Your task to perform on an android device: Open Google Maps and go to "Timeline" Image 0: 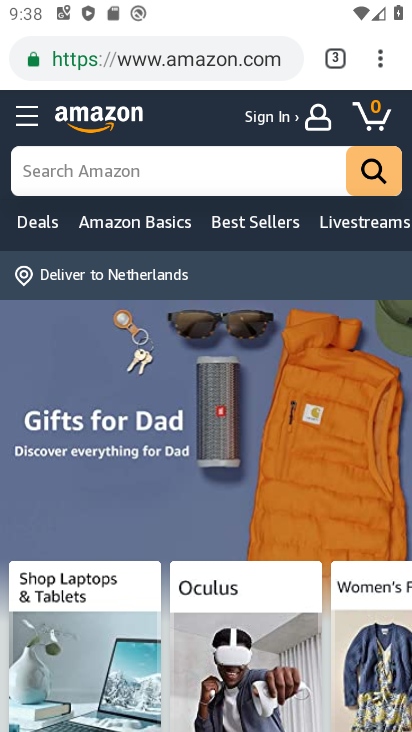
Step 0: press home button
Your task to perform on an android device: Open Google Maps and go to "Timeline" Image 1: 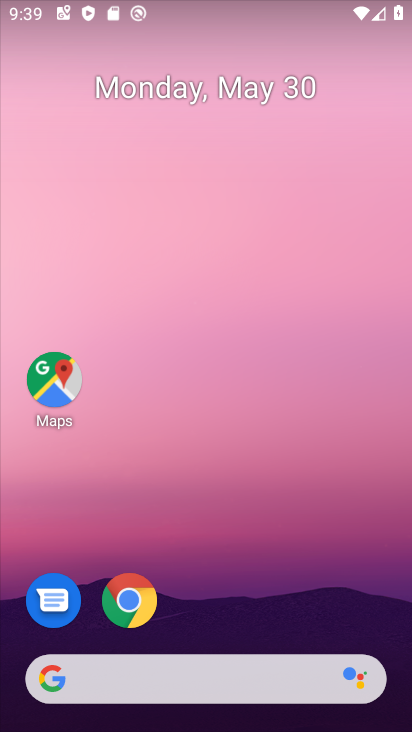
Step 1: click (55, 375)
Your task to perform on an android device: Open Google Maps and go to "Timeline" Image 2: 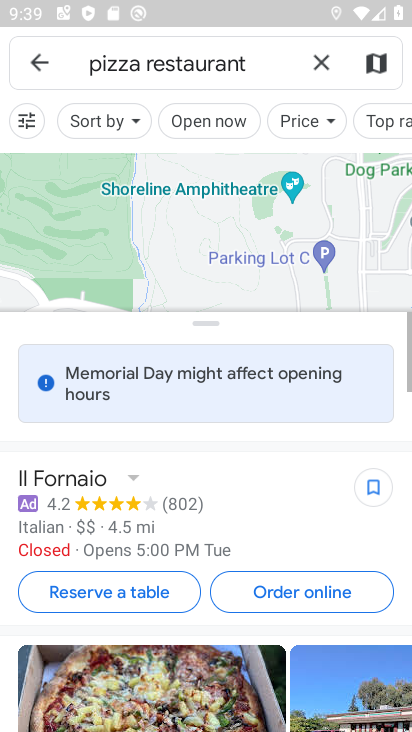
Step 2: click (324, 64)
Your task to perform on an android device: Open Google Maps and go to "Timeline" Image 3: 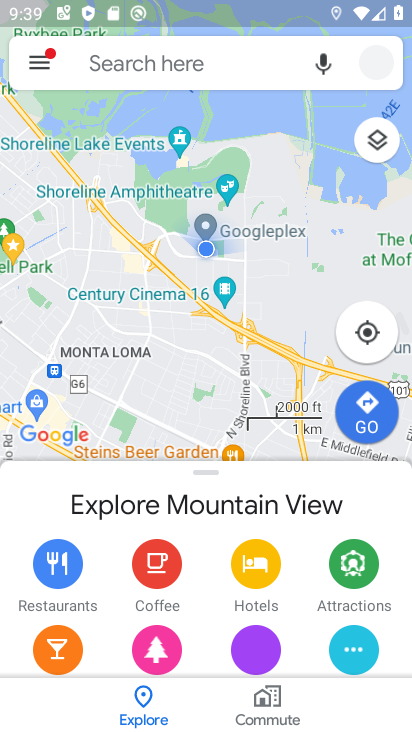
Step 3: click (32, 62)
Your task to perform on an android device: Open Google Maps and go to "Timeline" Image 4: 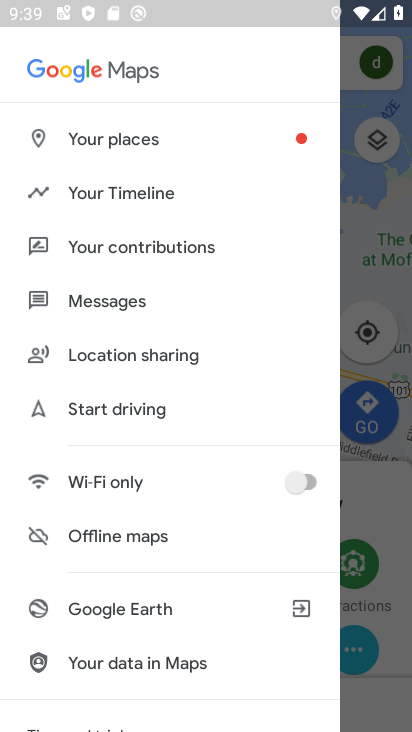
Step 4: click (117, 188)
Your task to perform on an android device: Open Google Maps and go to "Timeline" Image 5: 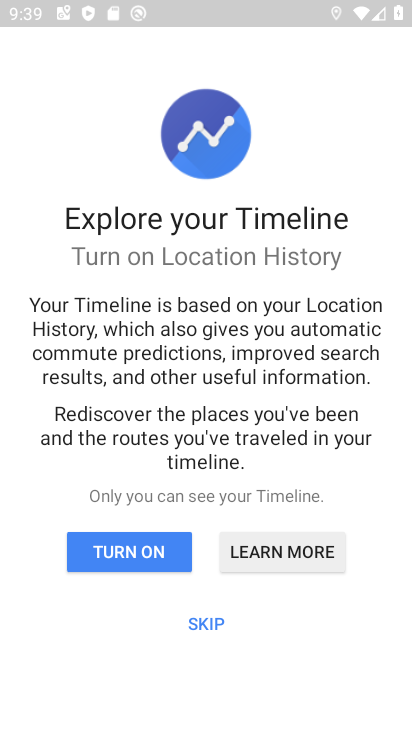
Step 5: click (209, 623)
Your task to perform on an android device: Open Google Maps and go to "Timeline" Image 6: 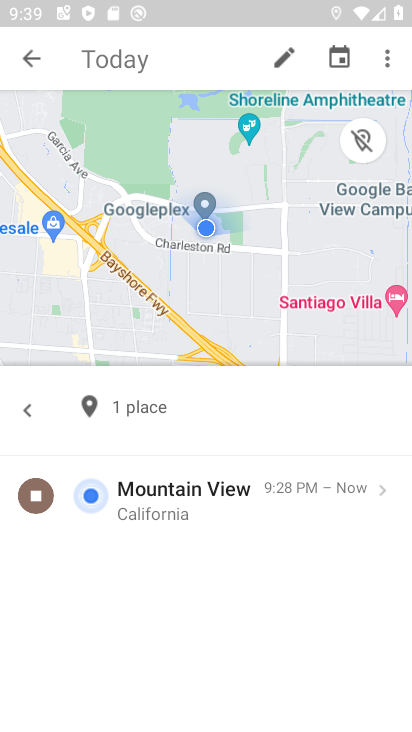
Step 6: task complete